Your task to perform on an android device: remove spam from my inbox in the gmail app Image 0: 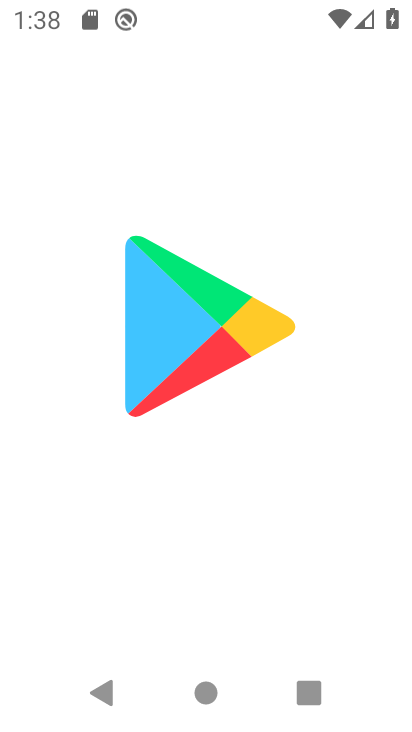
Step 0: drag from (326, 534) to (305, 148)
Your task to perform on an android device: remove spam from my inbox in the gmail app Image 1: 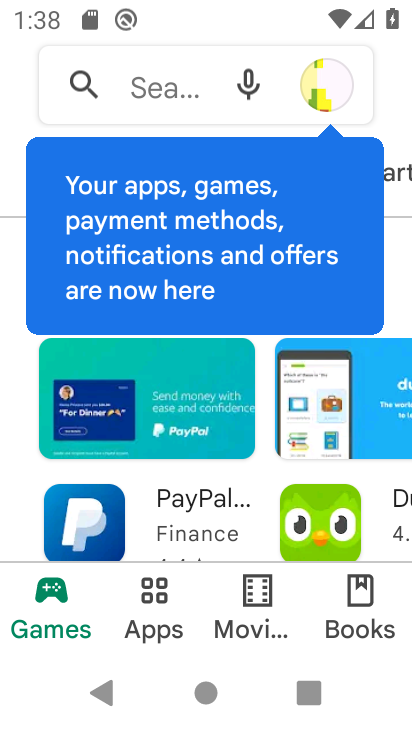
Step 1: press back button
Your task to perform on an android device: remove spam from my inbox in the gmail app Image 2: 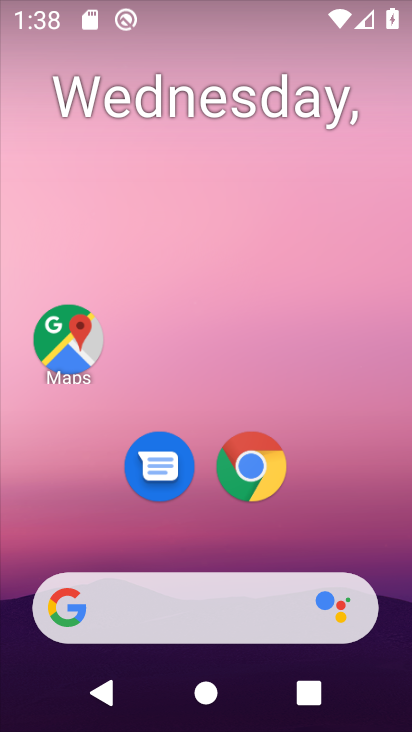
Step 2: drag from (291, 353) to (258, 71)
Your task to perform on an android device: remove spam from my inbox in the gmail app Image 3: 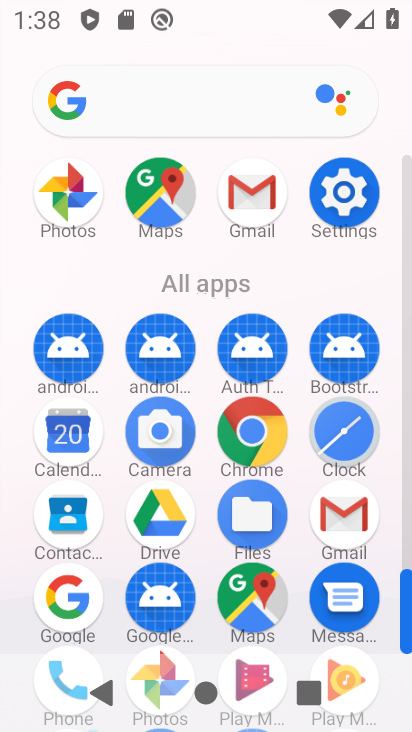
Step 3: drag from (4, 618) to (7, 351)
Your task to perform on an android device: remove spam from my inbox in the gmail app Image 4: 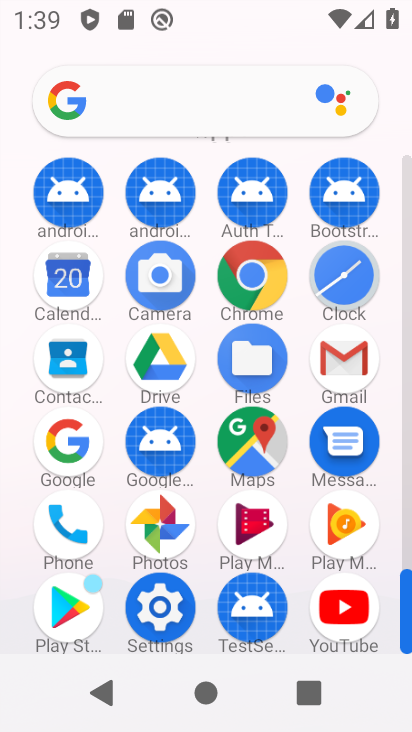
Step 4: click (347, 347)
Your task to perform on an android device: remove spam from my inbox in the gmail app Image 5: 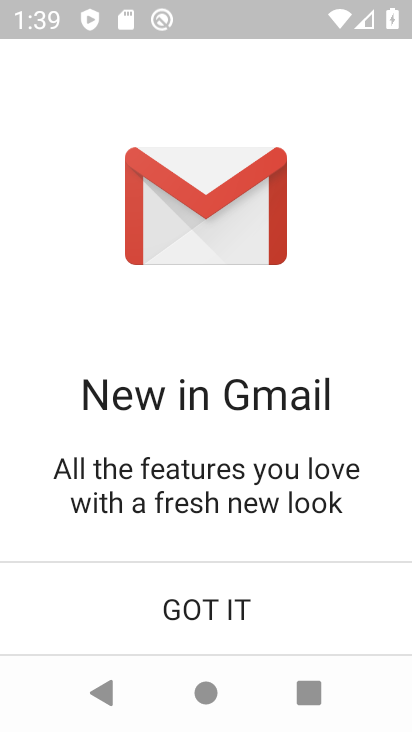
Step 5: click (224, 602)
Your task to perform on an android device: remove spam from my inbox in the gmail app Image 6: 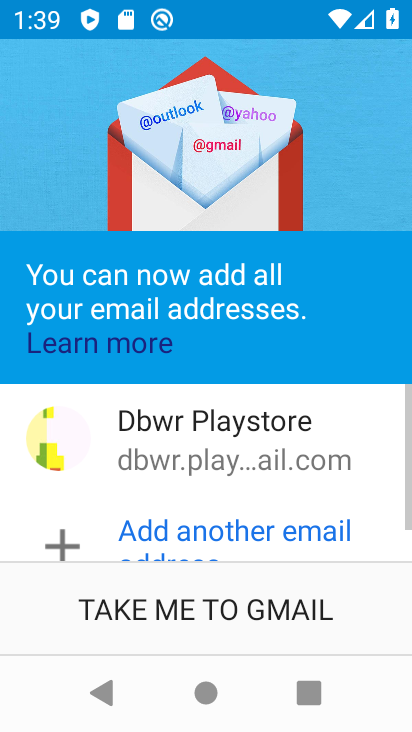
Step 6: click (220, 602)
Your task to perform on an android device: remove spam from my inbox in the gmail app Image 7: 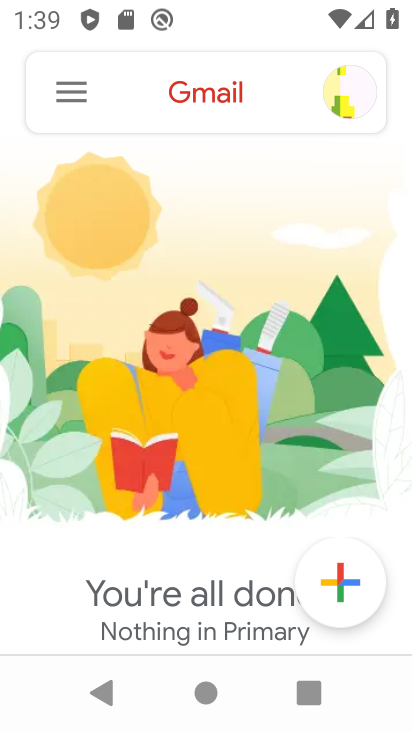
Step 7: click (75, 98)
Your task to perform on an android device: remove spam from my inbox in the gmail app Image 8: 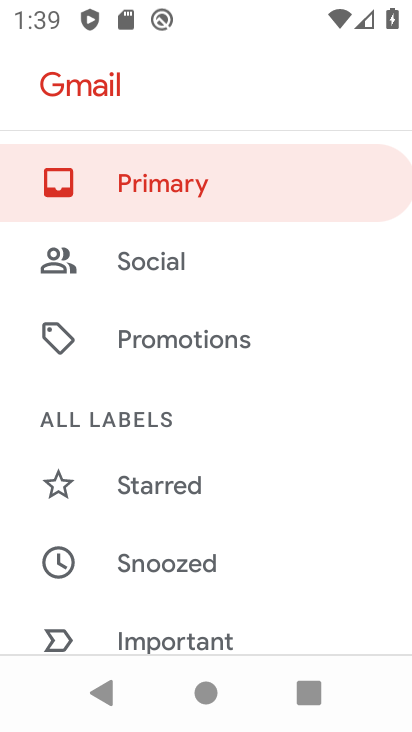
Step 8: drag from (281, 574) to (281, 170)
Your task to perform on an android device: remove spam from my inbox in the gmail app Image 9: 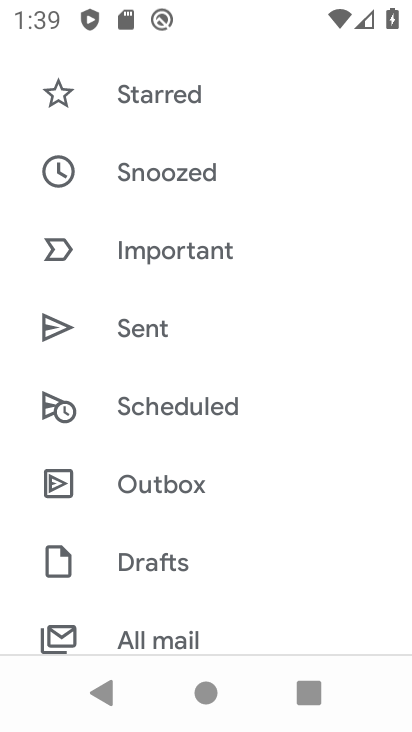
Step 9: drag from (235, 472) to (251, 120)
Your task to perform on an android device: remove spam from my inbox in the gmail app Image 10: 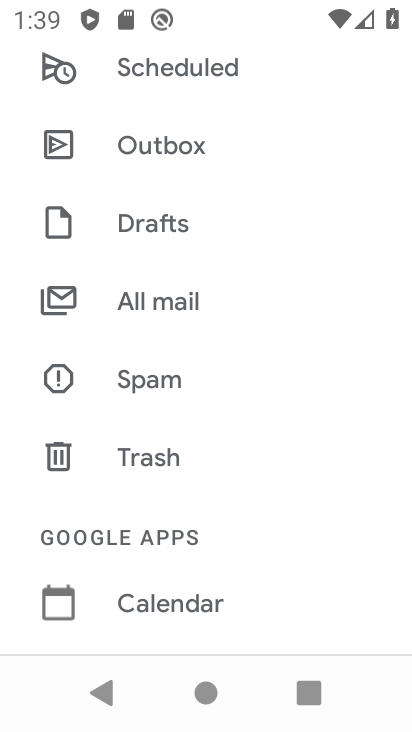
Step 10: drag from (221, 492) to (219, 111)
Your task to perform on an android device: remove spam from my inbox in the gmail app Image 11: 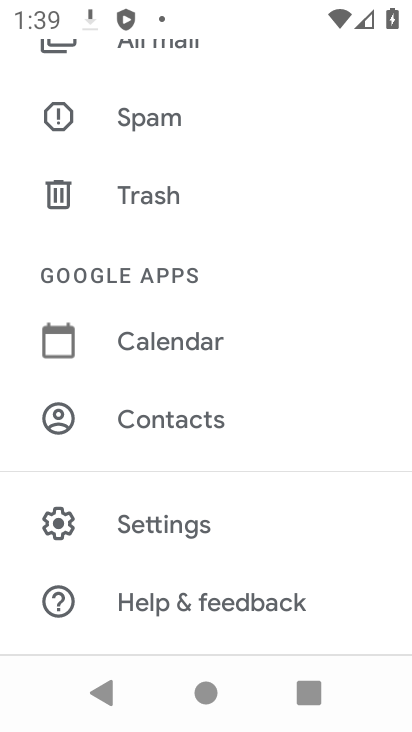
Step 11: click (171, 119)
Your task to perform on an android device: remove spam from my inbox in the gmail app Image 12: 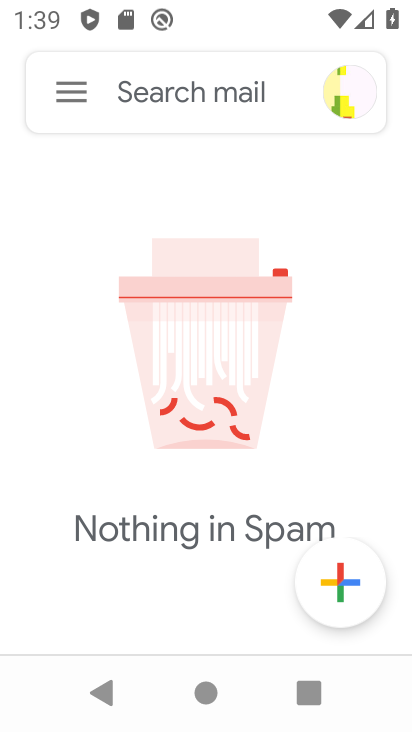
Step 12: task complete